Your task to perform on an android device: turn on bluetooth scan Image 0: 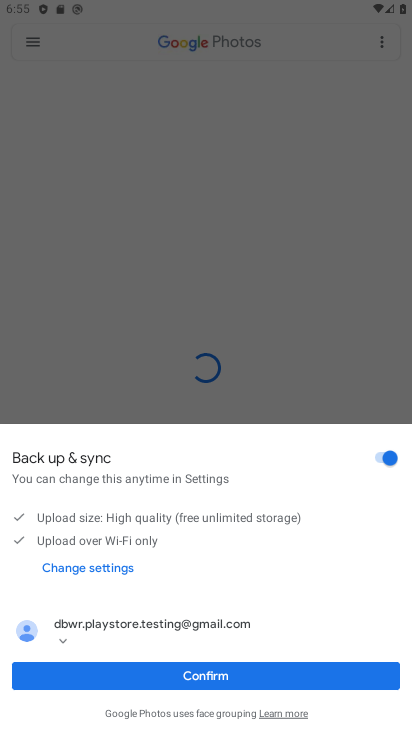
Step 0: press home button
Your task to perform on an android device: turn on bluetooth scan Image 1: 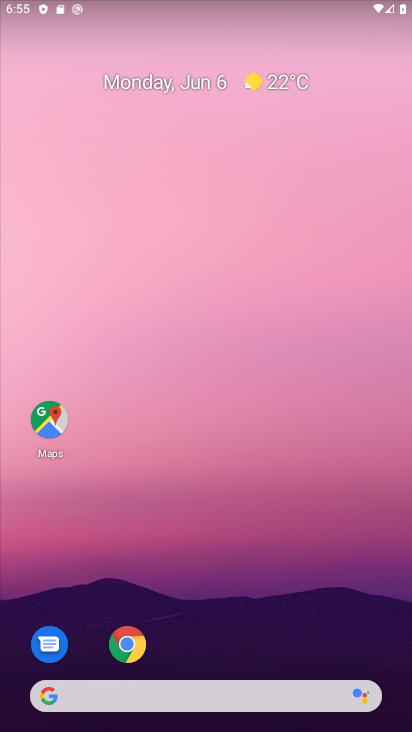
Step 1: drag from (269, 724) to (220, 214)
Your task to perform on an android device: turn on bluetooth scan Image 2: 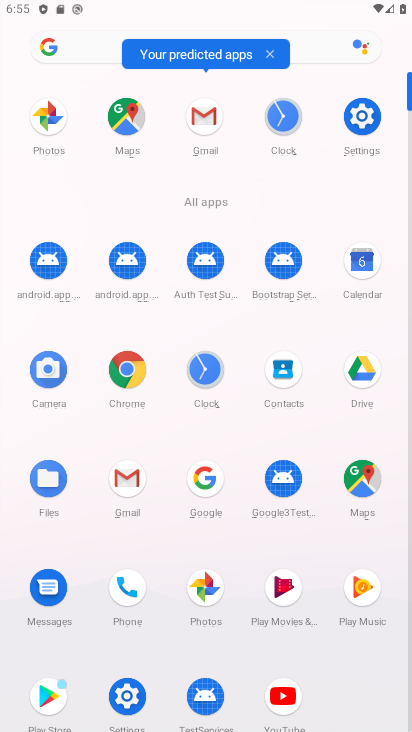
Step 2: click (355, 113)
Your task to perform on an android device: turn on bluetooth scan Image 3: 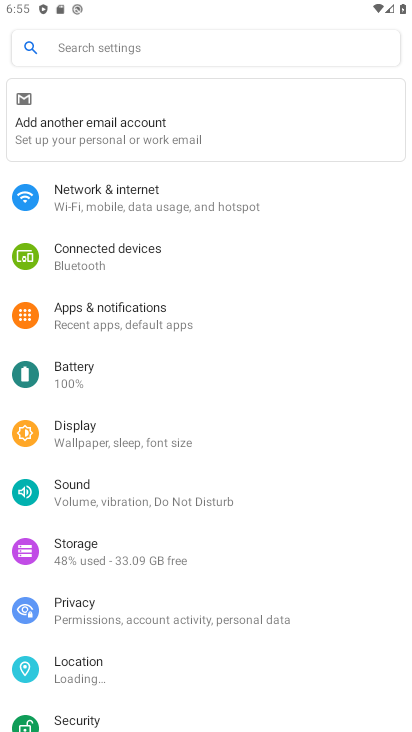
Step 3: click (135, 50)
Your task to perform on an android device: turn on bluetooth scan Image 4: 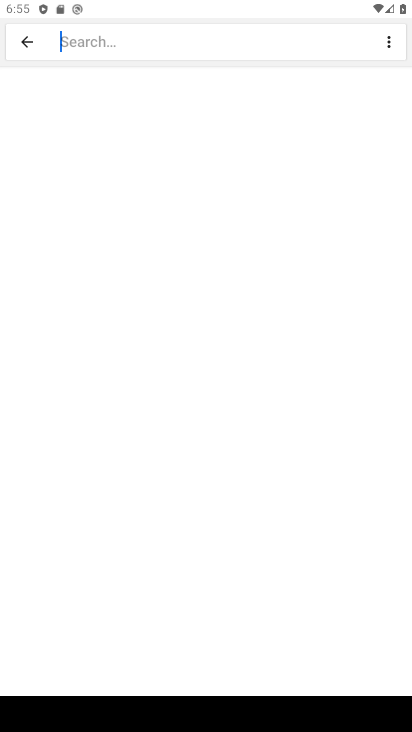
Step 4: drag from (375, 722) to (373, 668)
Your task to perform on an android device: turn on bluetooth scan Image 5: 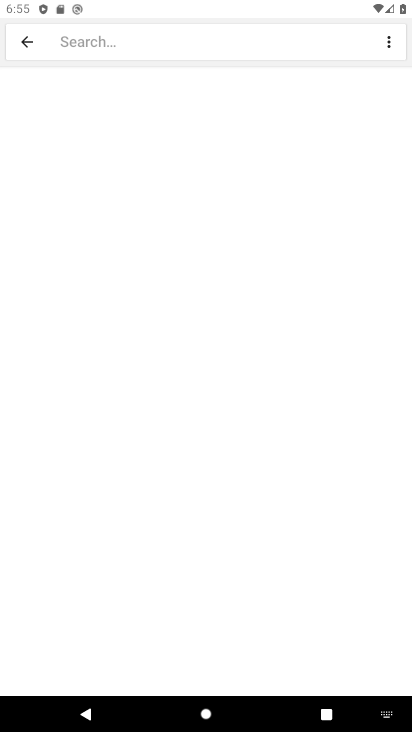
Step 5: click (397, 718)
Your task to perform on an android device: turn on bluetooth scan Image 6: 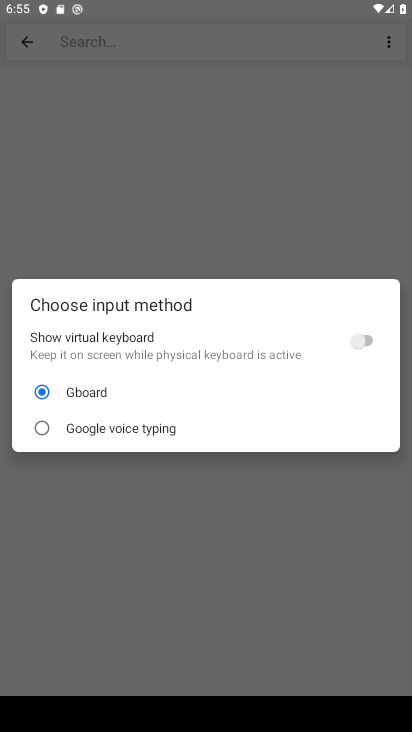
Step 6: click (359, 340)
Your task to perform on an android device: turn on bluetooth scan Image 7: 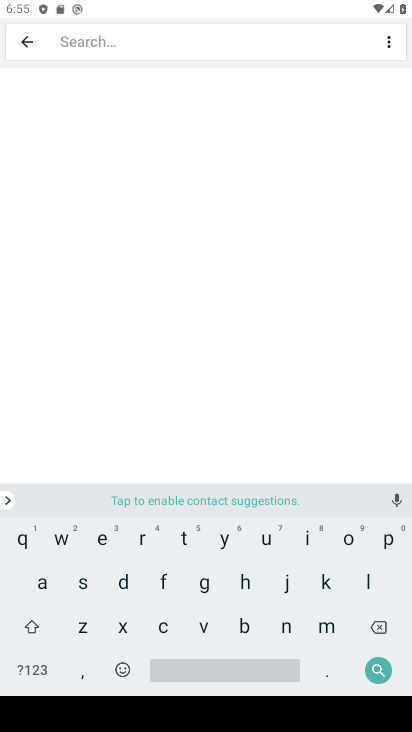
Step 7: click (367, 577)
Your task to perform on an android device: turn on bluetooth scan Image 8: 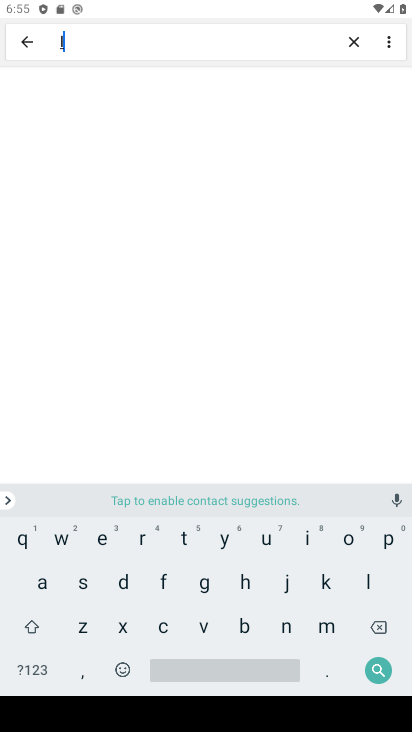
Step 8: click (339, 537)
Your task to perform on an android device: turn on bluetooth scan Image 9: 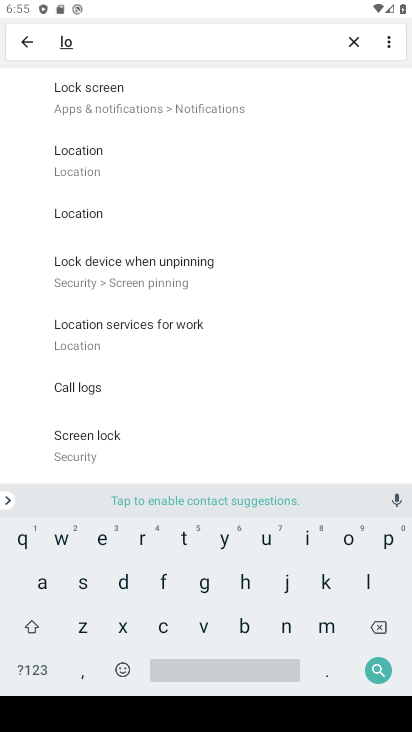
Step 9: click (89, 152)
Your task to perform on an android device: turn on bluetooth scan Image 10: 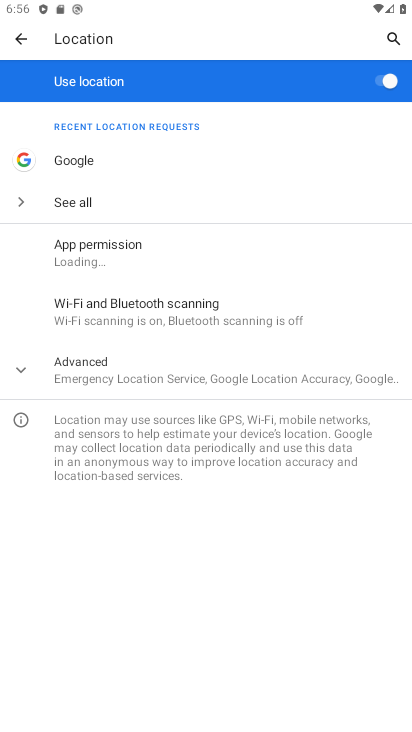
Step 10: task complete